Your task to perform on an android device: Open the stopwatch Image 0: 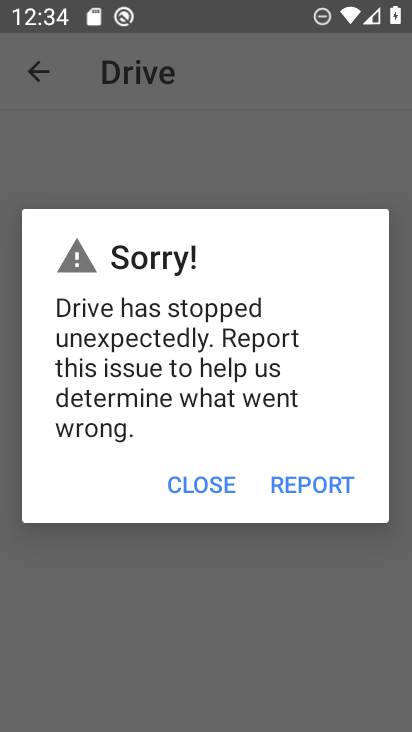
Step 0: press home button
Your task to perform on an android device: Open the stopwatch Image 1: 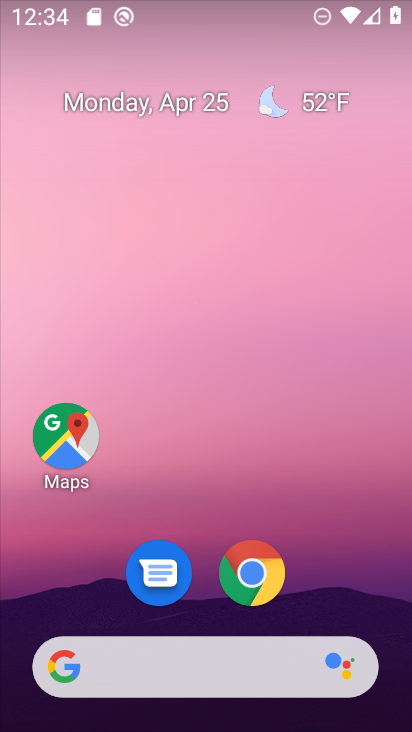
Step 1: drag from (233, 667) to (235, 142)
Your task to perform on an android device: Open the stopwatch Image 2: 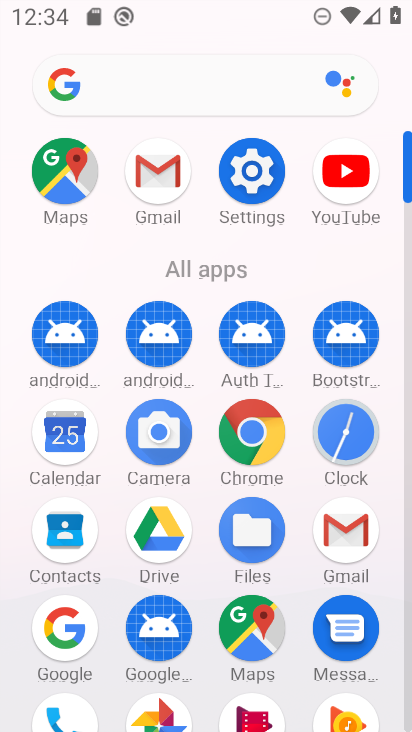
Step 2: click (338, 427)
Your task to perform on an android device: Open the stopwatch Image 3: 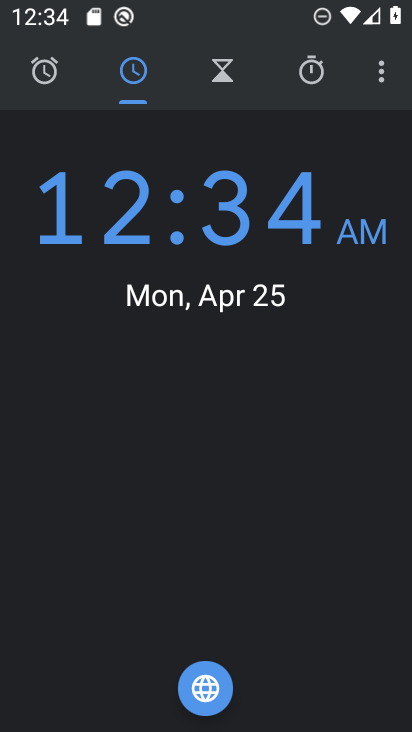
Step 3: click (311, 67)
Your task to perform on an android device: Open the stopwatch Image 4: 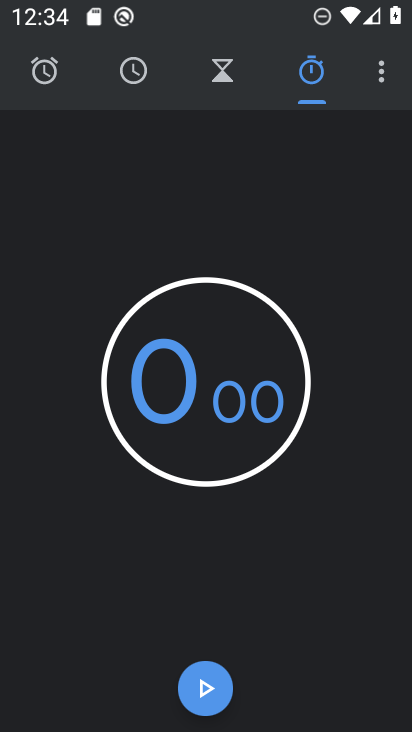
Step 4: task complete